Your task to perform on an android device: set the stopwatch Image 0: 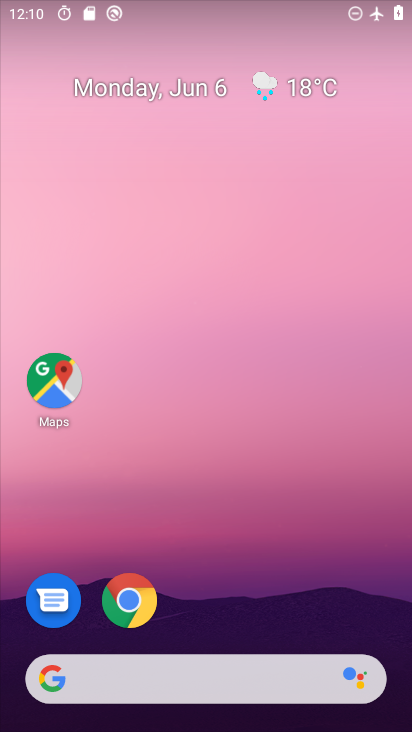
Step 0: drag from (226, 632) to (250, 216)
Your task to perform on an android device: set the stopwatch Image 1: 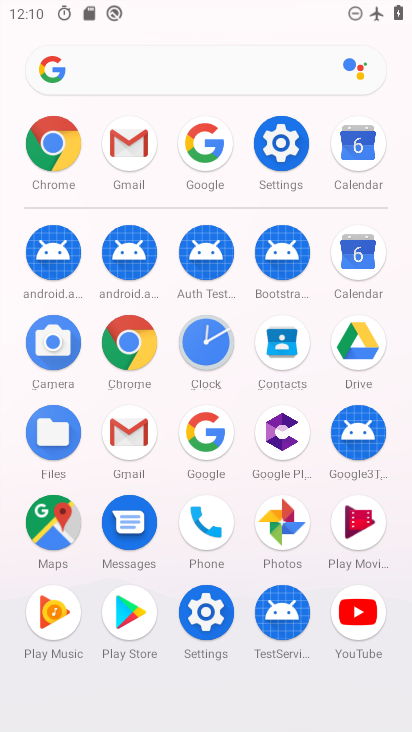
Step 1: click (208, 329)
Your task to perform on an android device: set the stopwatch Image 2: 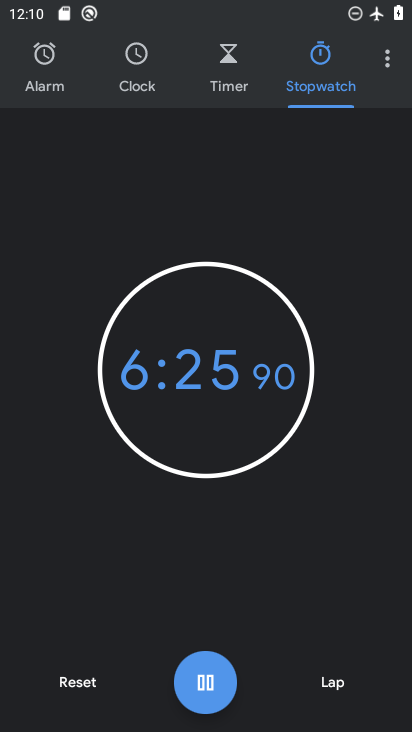
Step 2: task complete